Your task to perform on an android device: show emergency info Image 0: 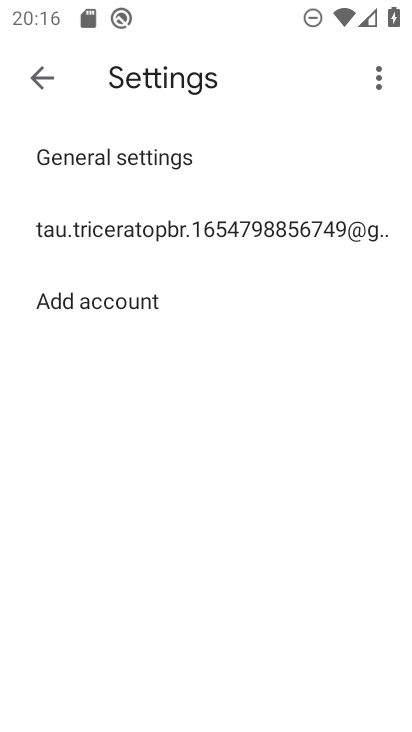
Step 0: press home button
Your task to perform on an android device: show emergency info Image 1: 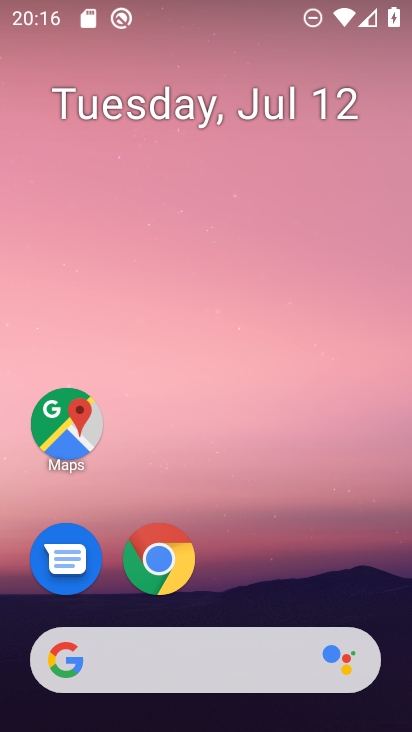
Step 1: drag from (363, 570) to (361, 140)
Your task to perform on an android device: show emergency info Image 2: 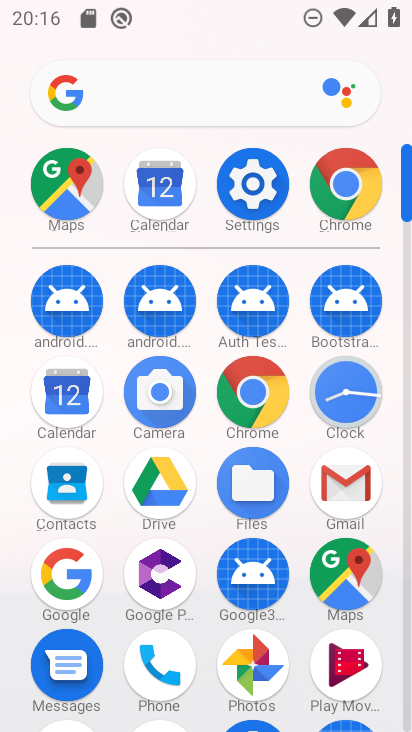
Step 2: click (255, 201)
Your task to perform on an android device: show emergency info Image 3: 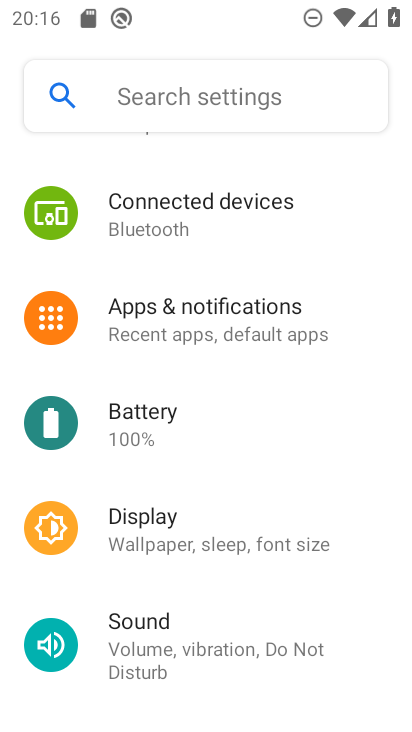
Step 3: drag from (364, 210) to (365, 358)
Your task to perform on an android device: show emergency info Image 4: 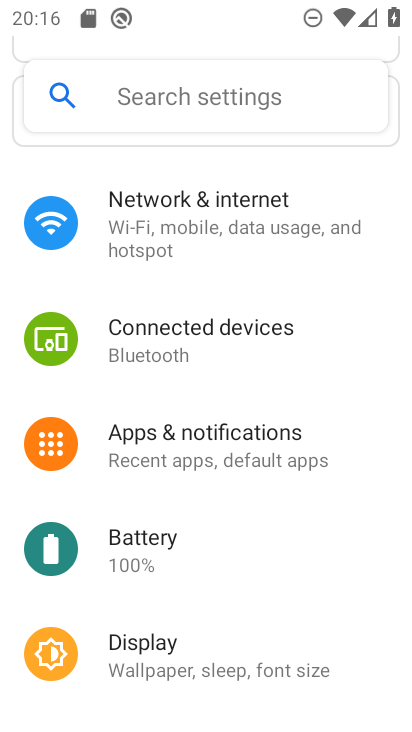
Step 4: drag from (375, 187) to (354, 494)
Your task to perform on an android device: show emergency info Image 5: 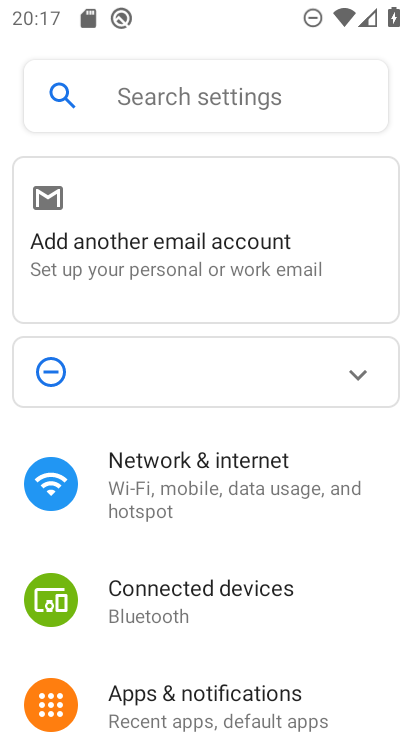
Step 5: drag from (365, 575) to (373, 467)
Your task to perform on an android device: show emergency info Image 6: 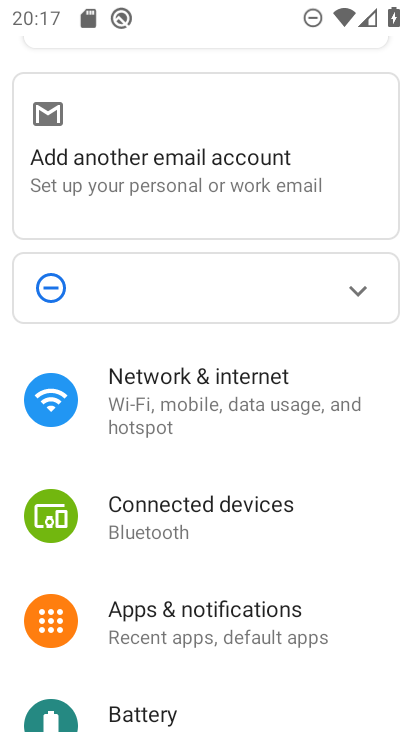
Step 6: drag from (348, 550) to (347, 435)
Your task to perform on an android device: show emergency info Image 7: 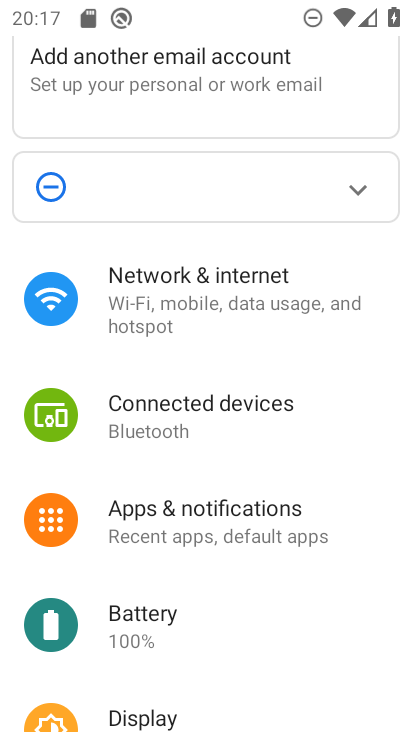
Step 7: drag from (352, 531) to (355, 424)
Your task to perform on an android device: show emergency info Image 8: 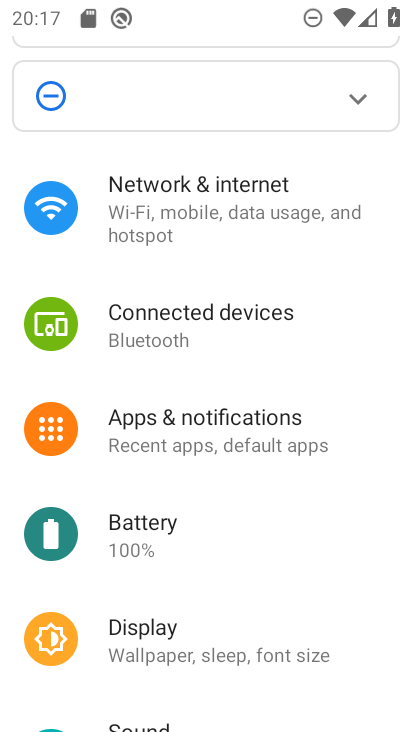
Step 8: drag from (349, 510) to (360, 417)
Your task to perform on an android device: show emergency info Image 9: 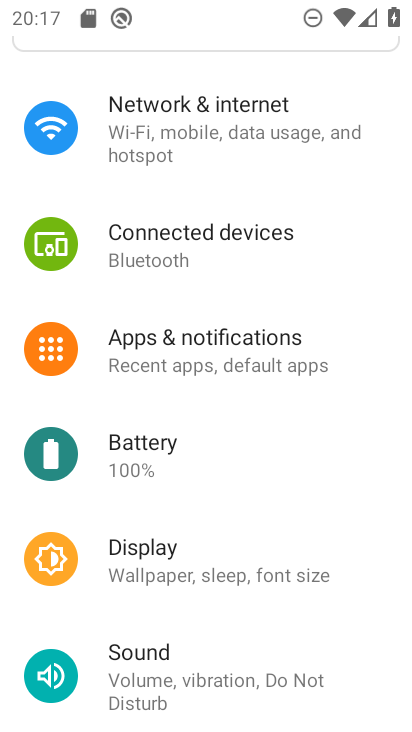
Step 9: drag from (347, 492) to (346, 388)
Your task to perform on an android device: show emergency info Image 10: 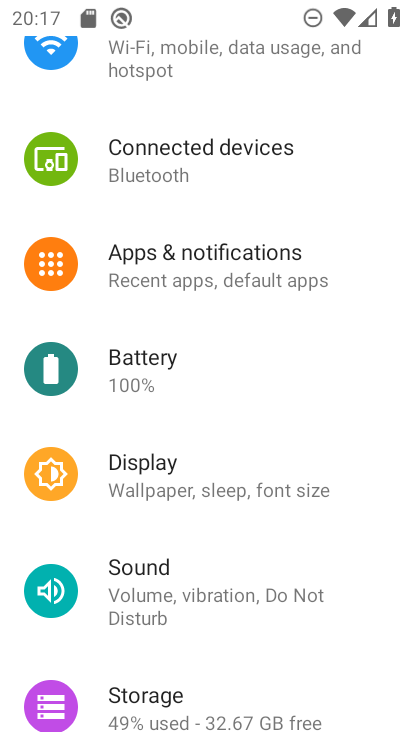
Step 10: drag from (337, 481) to (333, 367)
Your task to perform on an android device: show emergency info Image 11: 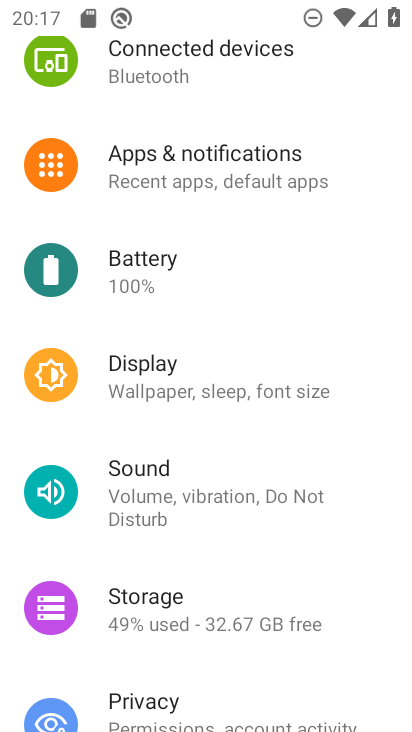
Step 11: drag from (351, 481) to (346, 377)
Your task to perform on an android device: show emergency info Image 12: 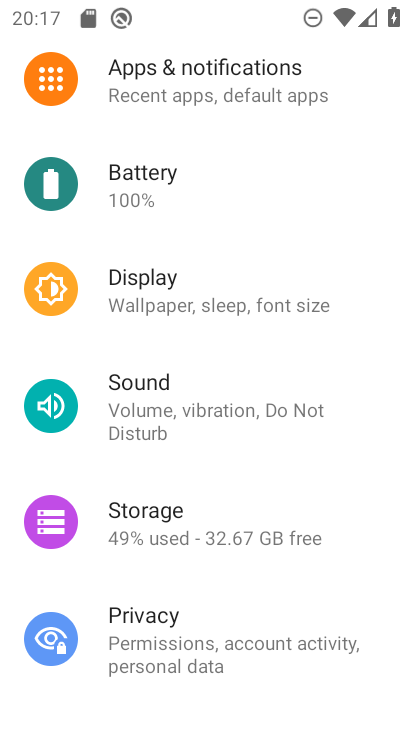
Step 12: drag from (342, 502) to (343, 398)
Your task to perform on an android device: show emergency info Image 13: 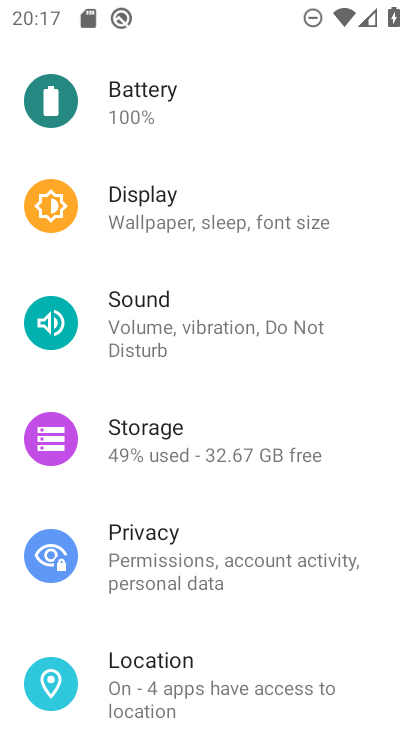
Step 13: drag from (341, 498) to (344, 392)
Your task to perform on an android device: show emergency info Image 14: 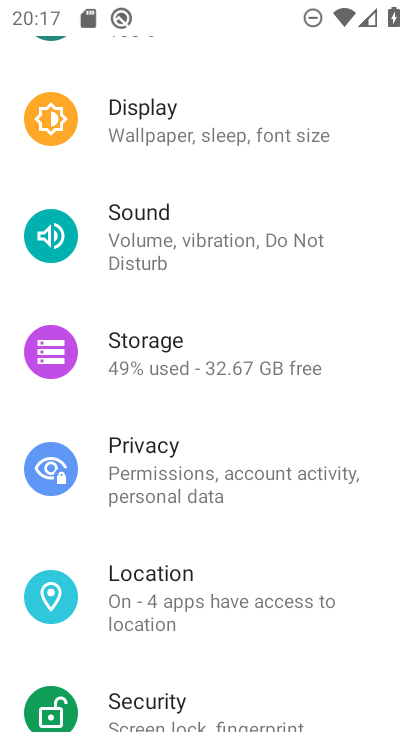
Step 14: drag from (347, 498) to (353, 373)
Your task to perform on an android device: show emergency info Image 15: 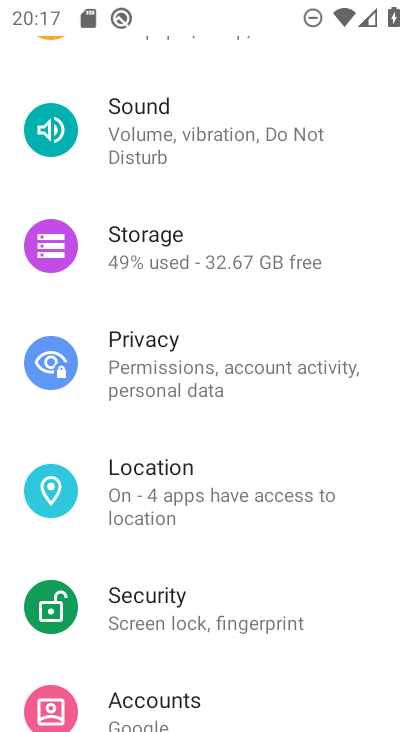
Step 15: drag from (363, 519) to (374, 380)
Your task to perform on an android device: show emergency info Image 16: 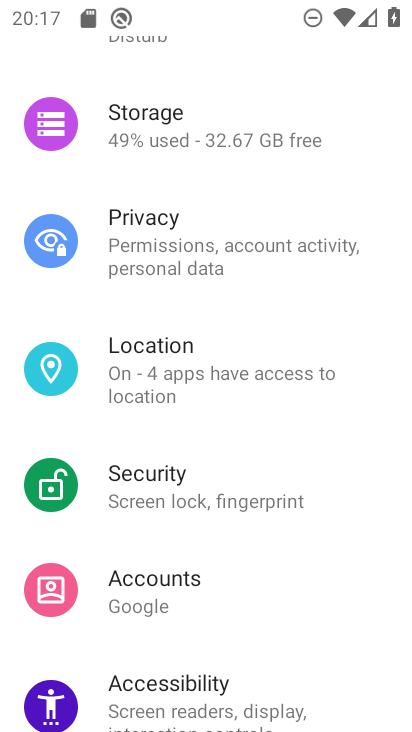
Step 16: drag from (377, 514) to (379, 356)
Your task to perform on an android device: show emergency info Image 17: 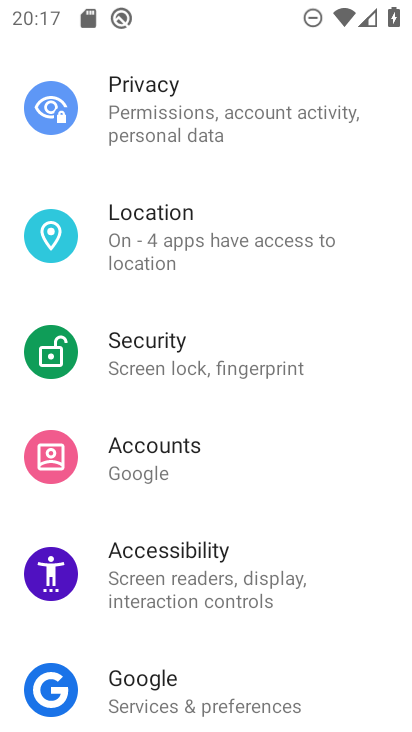
Step 17: drag from (354, 529) to (351, 205)
Your task to perform on an android device: show emergency info Image 18: 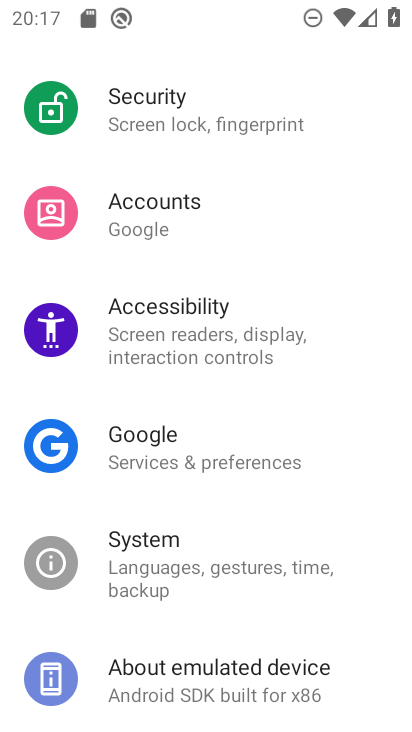
Step 18: click (333, 690)
Your task to perform on an android device: show emergency info Image 19: 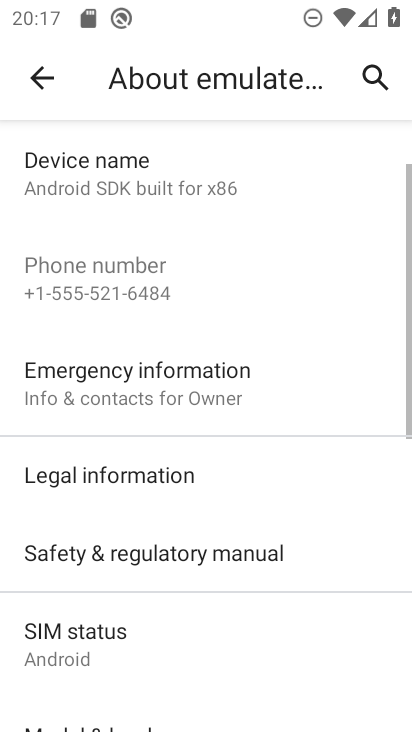
Step 19: click (290, 383)
Your task to perform on an android device: show emergency info Image 20: 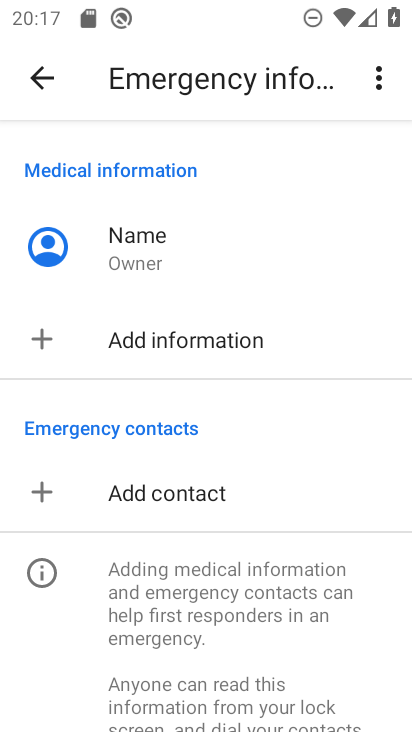
Step 20: task complete